Your task to perform on an android device: show emergency info Image 0: 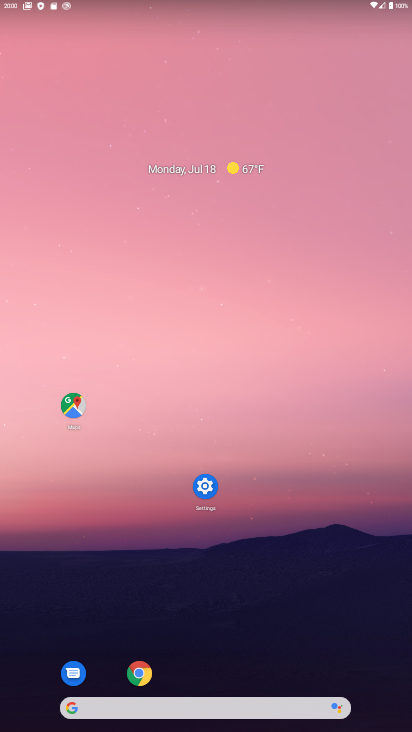
Step 0: drag from (258, 692) to (266, 183)
Your task to perform on an android device: show emergency info Image 1: 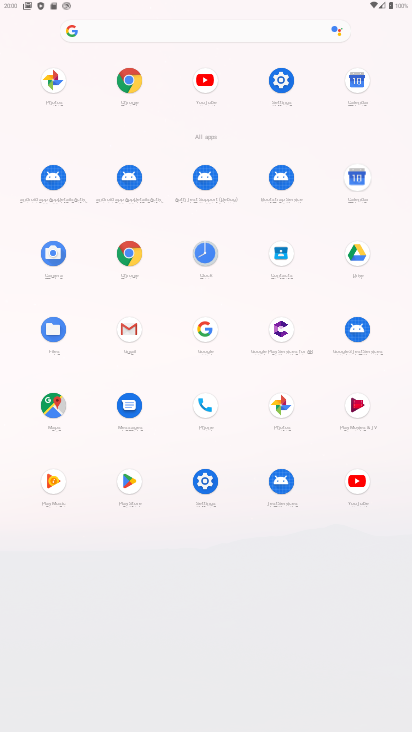
Step 1: click (206, 490)
Your task to perform on an android device: show emergency info Image 2: 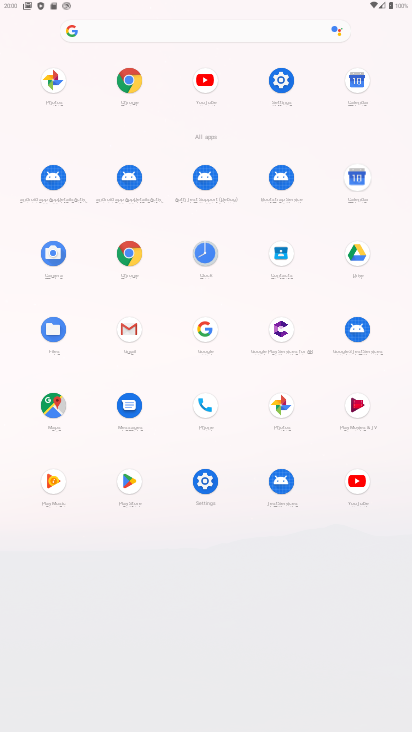
Step 2: click (212, 482)
Your task to perform on an android device: show emergency info Image 3: 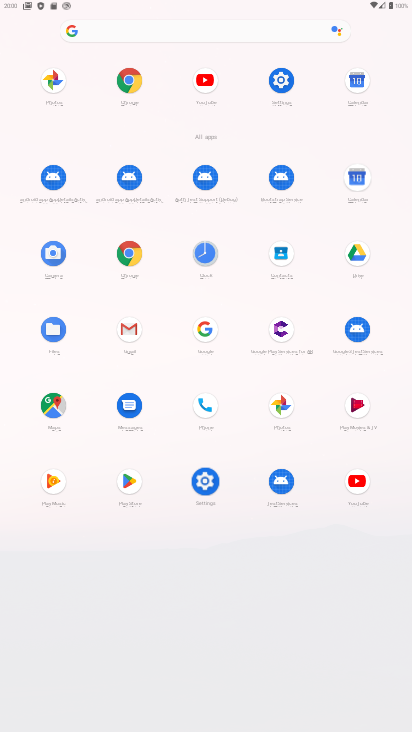
Step 3: click (213, 482)
Your task to perform on an android device: show emergency info Image 4: 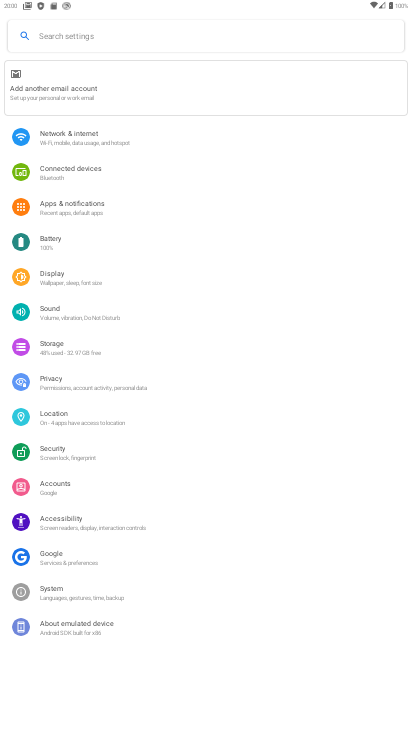
Step 4: click (216, 482)
Your task to perform on an android device: show emergency info Image 5: 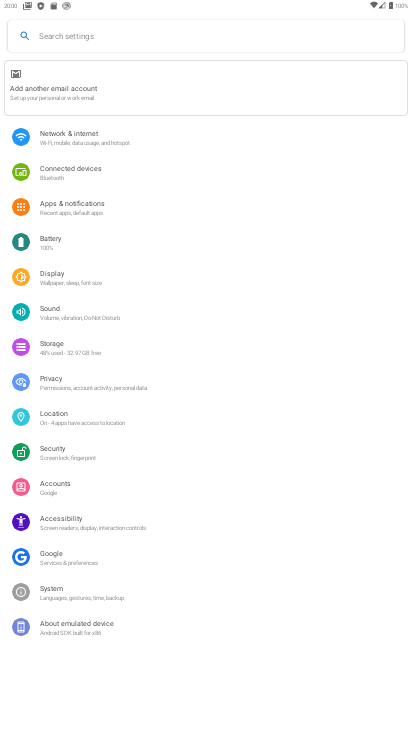
Step 5: click (216, 483)
Your task to perform on an android device: show emergency info Image 6: 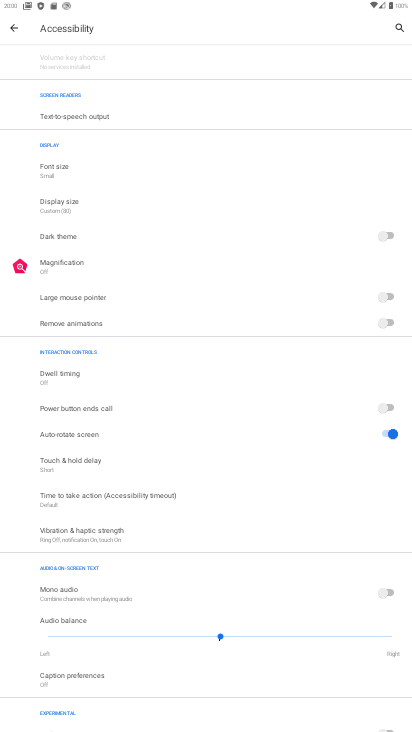
Step 6: click (16, 37)
Your task to perform on an android device: show emergency info Image 7: 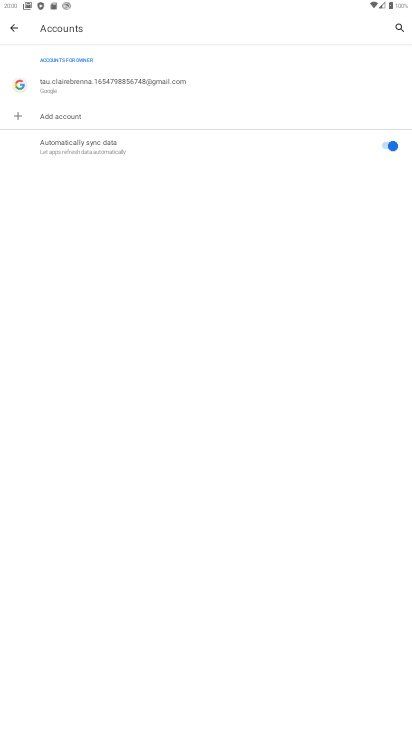
Step 7: click (12, 20)
Your task to perform on an android device: show emergency info Image 8: 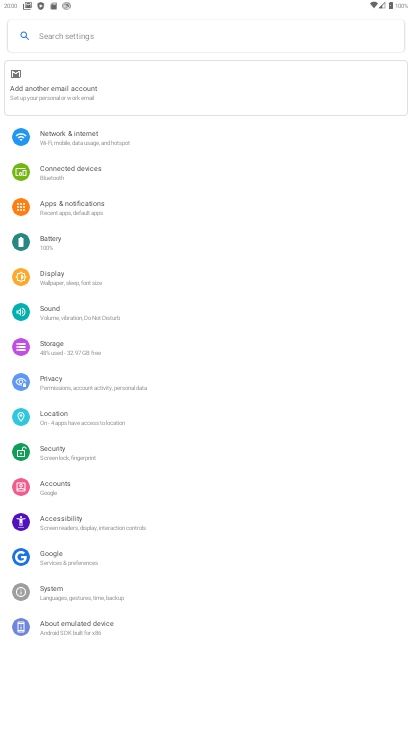
Step 8: click (60, 623)
Your task to perform on an android device: show emergency info Image 9: 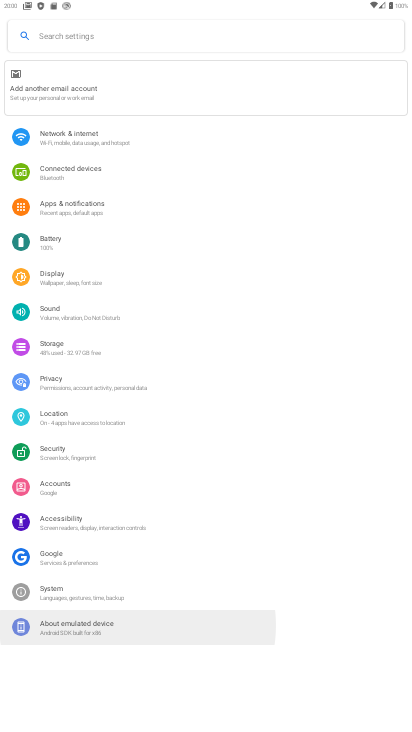
Step 9: click (60, 622)
Your task to perform on an android device: show emergency info Image 10: 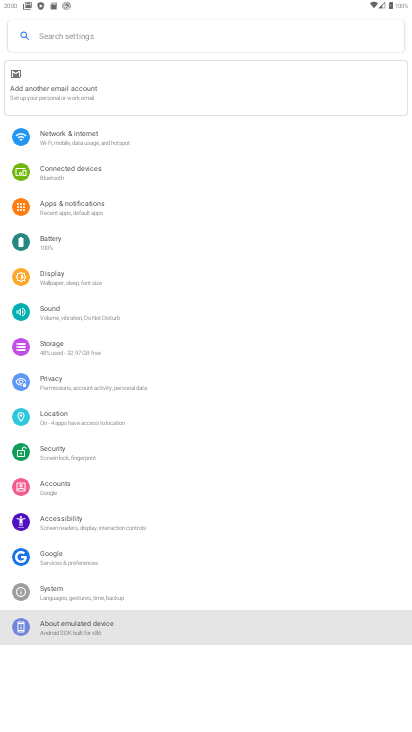
Step 10: click (60, 621)
Your task to perform on an android device: show emergency info Image 11: 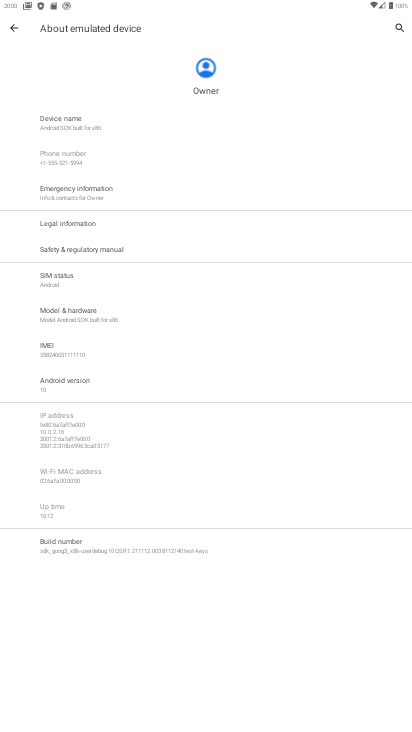
Step 11: drag from (80, 372) to (62, 245)
Your task to perform on an android device: show emergency info Image 12: 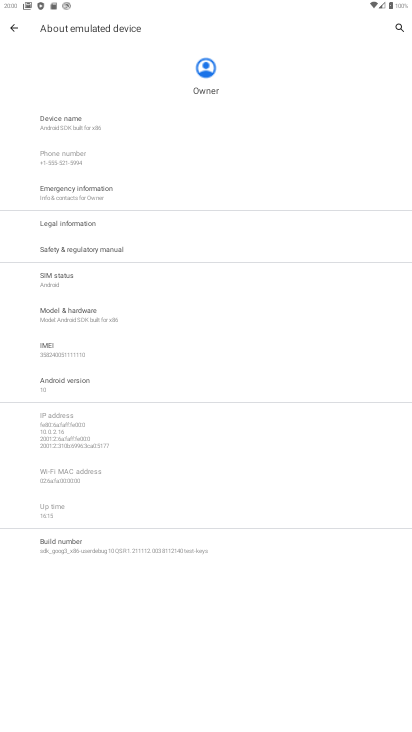
Step 12: click (65, 193)
Your task to perform on an android device: show emergency info Image 13: 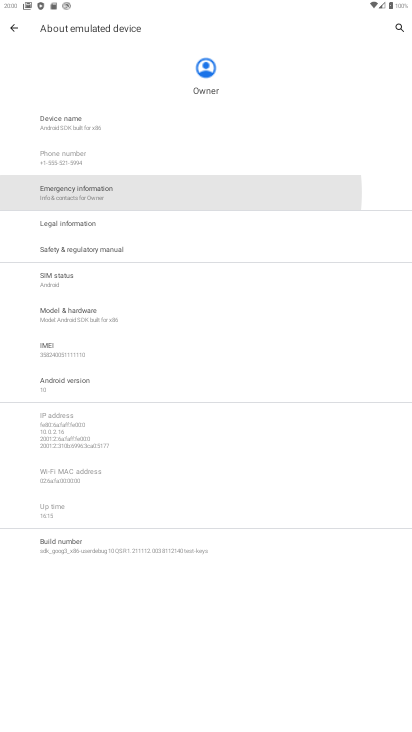
Step 13: click (63, 194)
Your task to perform on an android device: show emergency info Image 14: 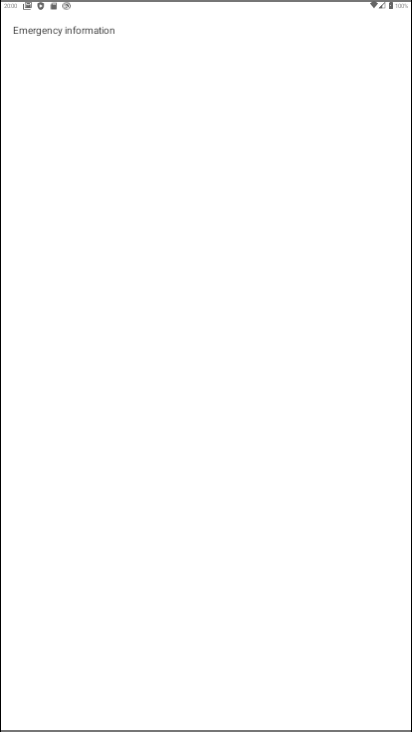
Step 14: click (63, 195)
Your task to perform on an android device: show emergency info Image 15: 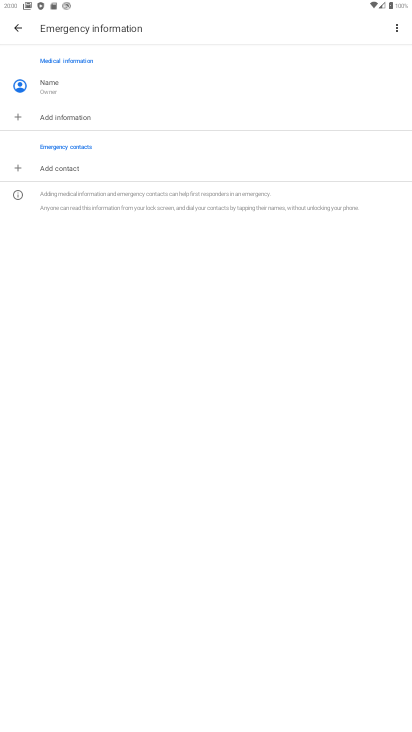
Step 15: task complete